Your task to perform on an android device: change notification settings in the gmail app Image 0: 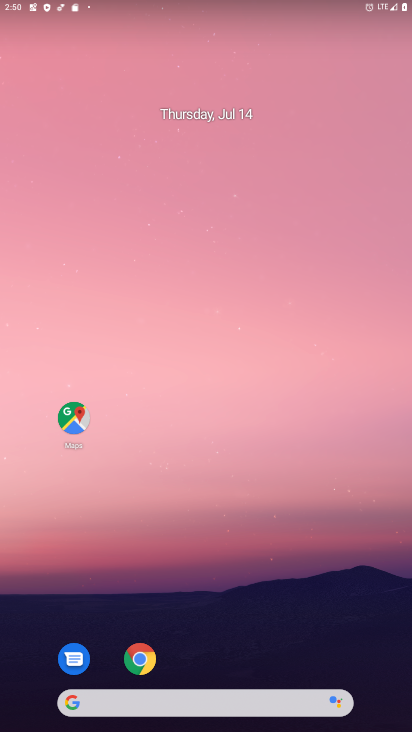
Step 0: press home button
Your task to perform on an android device: change notification settings in the gmail app Image 1: 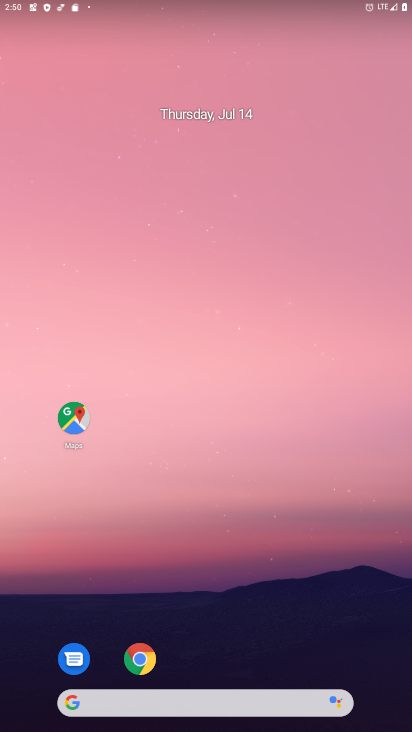
Step 1: drag from (290, 664) to (290, 17)
Your task to perform on an android device: change notification settings in the gmail app Image 2: 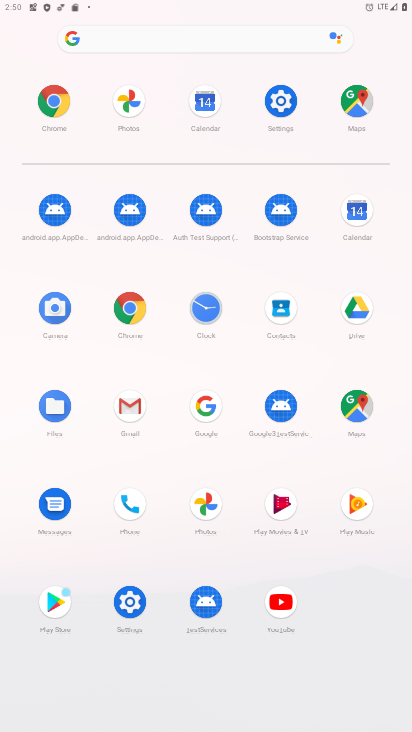
Step 2: click (135, 404)
Your task to perform on an android device: change notification settings in the gmail app Image 3: 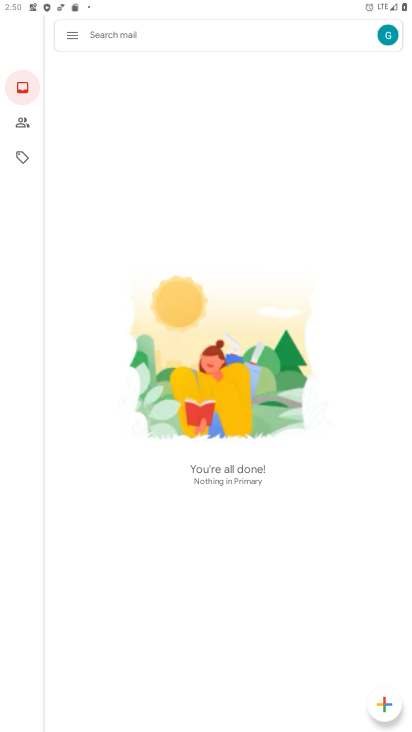
Step 3: click (68, 29)
Your task to perform on an android device: change notification settings in the gmail app Image 4: 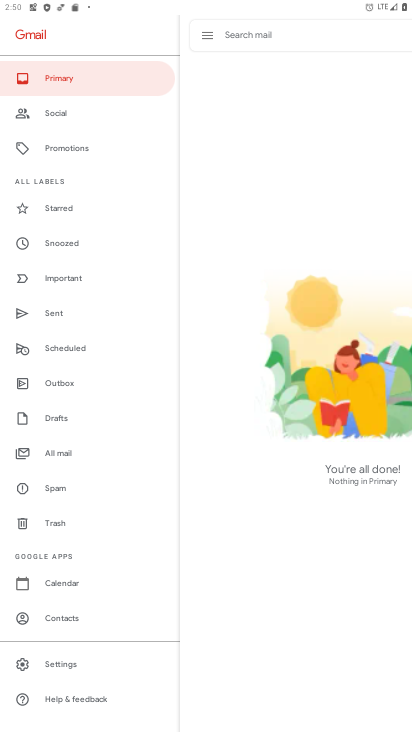
Step 4: click (65, 668)
Your task to perform on an android device: change notification settings in the gmail app Image 5: 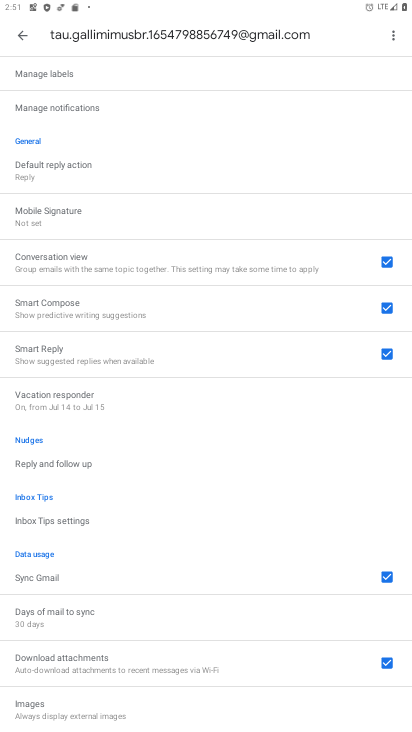
Step 5: click (44, 107)
Your task to perform on an android device: change notification settings in the gmail app Image 6: 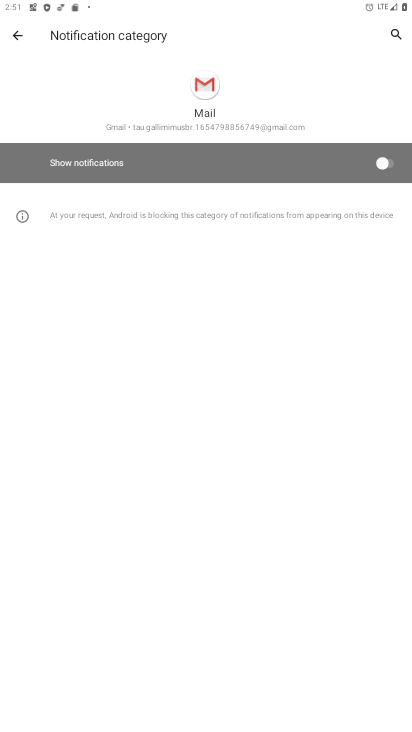
Step 6: click (387, 161)
Your task to perform on an android device: change notification settings in the gmail app Image 7: 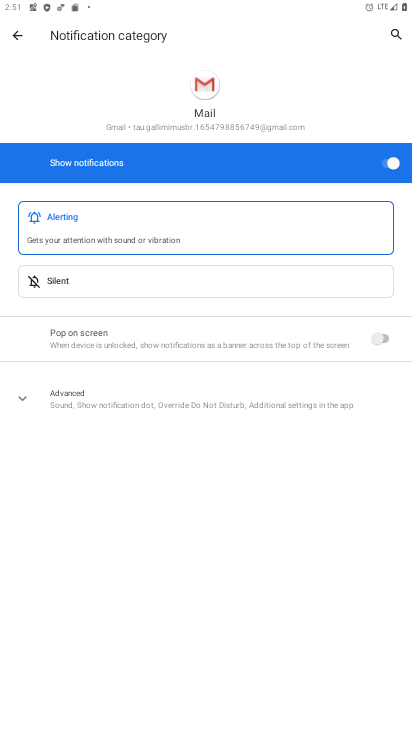
Step 7: task complete